Your task to perform on an android device: change your default location settings in chrome Image 0: 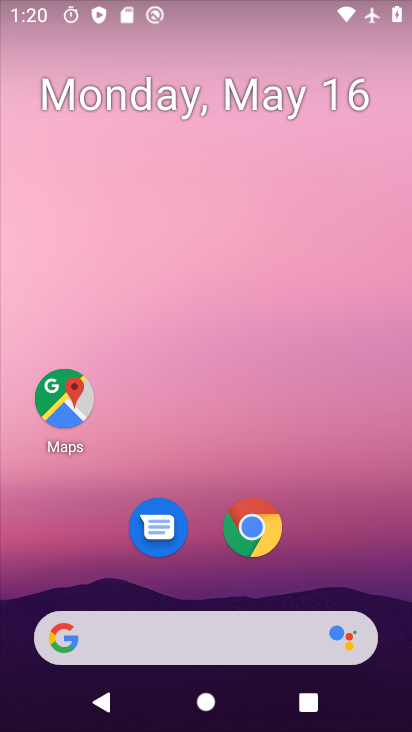
Step 0: press home button
Your task to perform on an android device: change your default location settings in chrome Image 1: 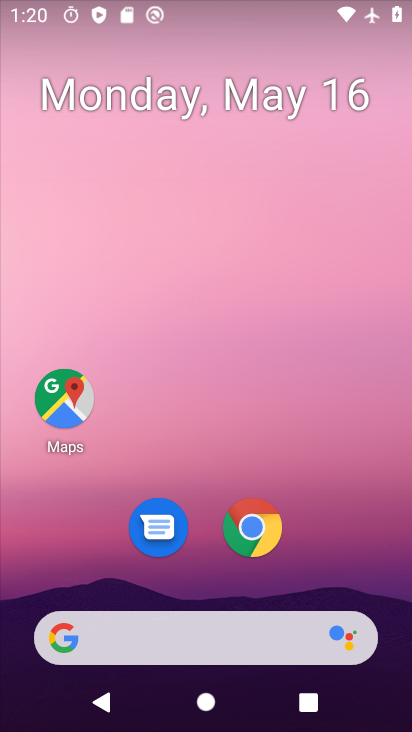
Step 1: click (249, 536)
Your task to perform on an android device: change your default location settings in chrome Image 2: 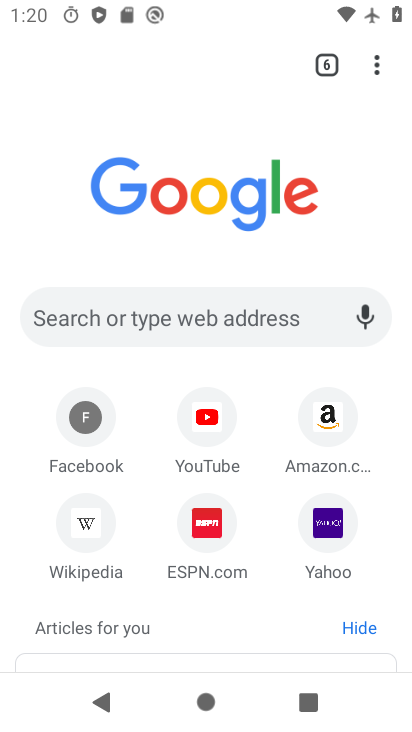
Step 2: drag from (377, 69) to (206, 546)
Your task to perform on an android device: change your default location settings in chrome Image 3: 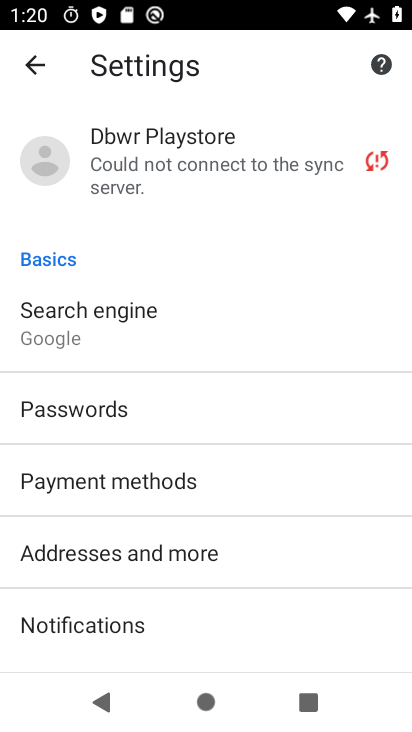
Step 3: drag from (164, 600) to (282, 324)
Your task to perform on an android device: change your default location settings in chrome Image 4: 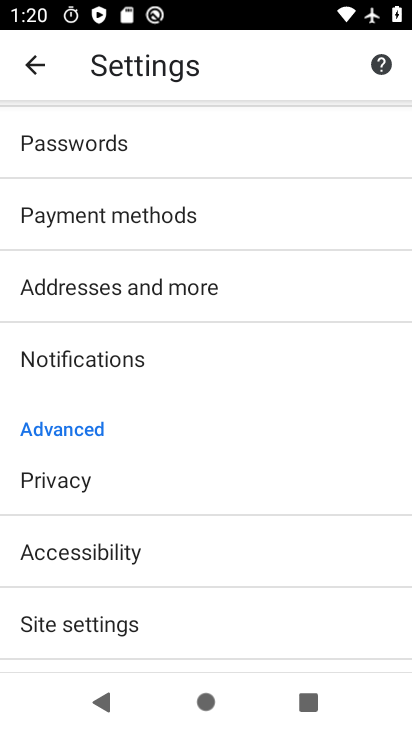
Step 4: click (62, 622)
Your task to perform on an android device: change your default location settings in chrome Image 5: 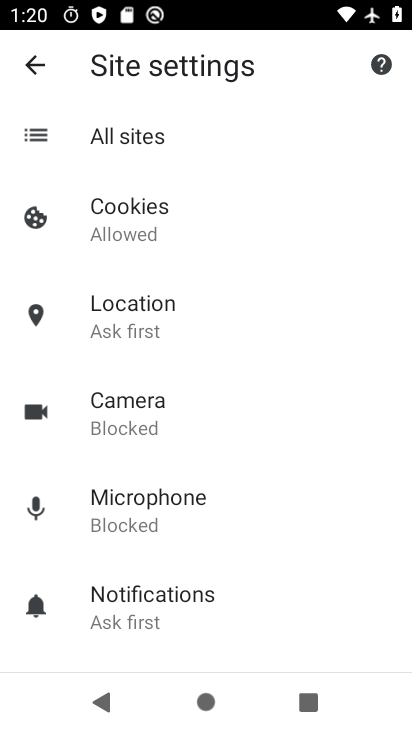
Step 5: click (149, 319)
Your task to perform on an android device: change your default location settings in chrome Image 6: 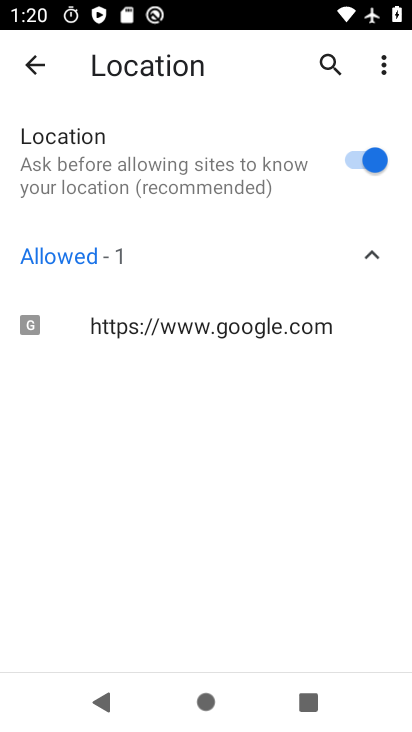
Step 6: click (354, 161)
Your task to perform on an android device: change your default location settings in chrome Image 7: 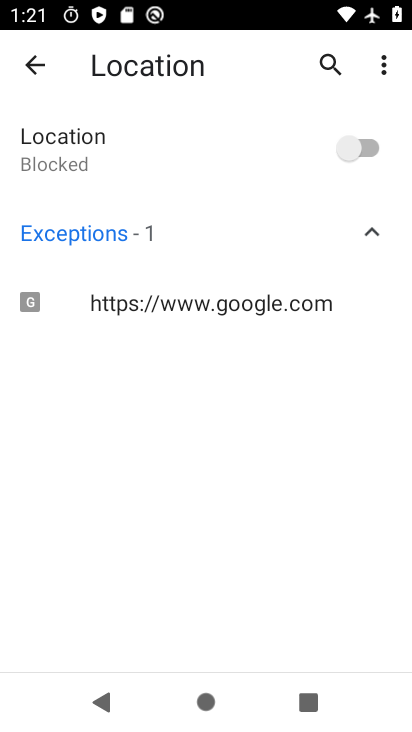
Step 7: task complete